Your task to perform on an android device: What's the weather going to be tomorrow? Image 0: 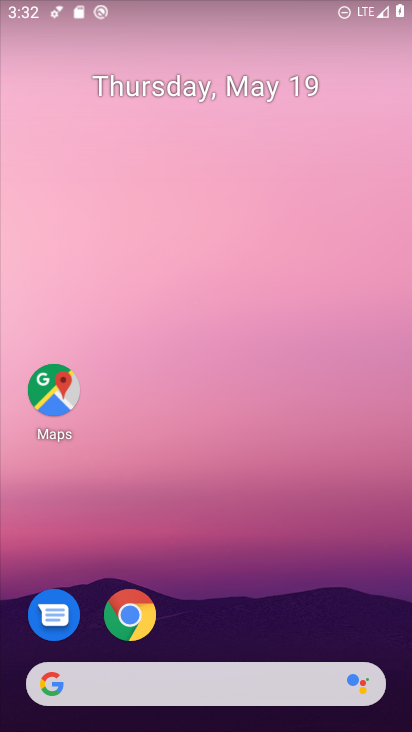
Step 0: drag from (229, 625) to (145, 15)
Your task to perform on an android device: What's the weather going to be tomorrow? Image 1: 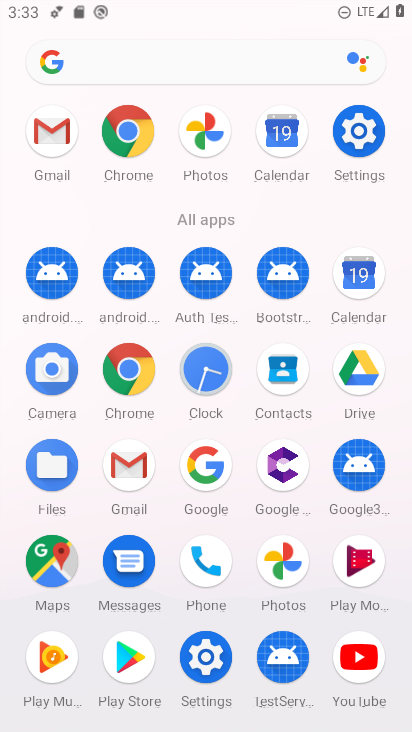
Step 1: click (234, 70)
Your task to perform on an android device: What's the weather going to be tomorrow? Image 2: 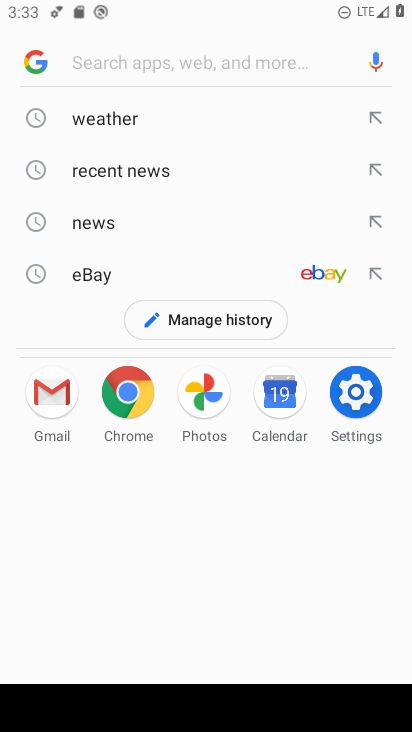
Step 2: type "What's the weather going to be tomorrow?"
Your task to perform on an android device: What's the weather going to be tomorrow? Image 3: 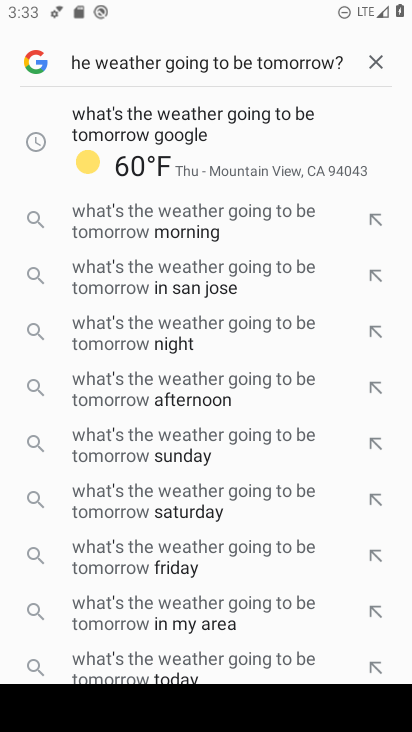
Step 3: click (178, 131)
Your task to perform on an android device: What's the weather going to be tomorrow? Image 4: 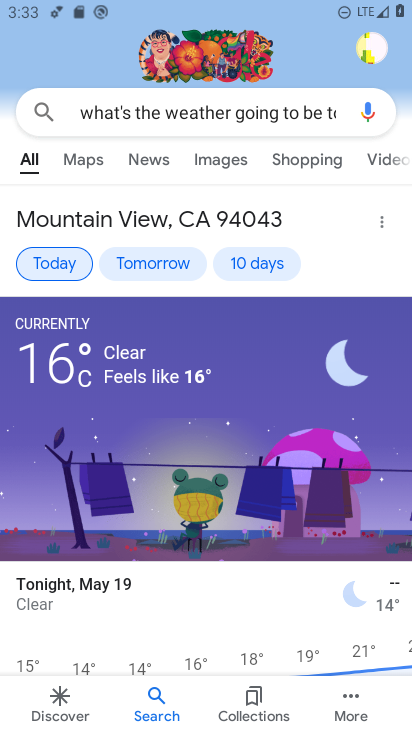
Step 4: drag from (202, 599) to (183, 491)
Your task to perform on an android device: What's the weather going to be tomorrow? Image 5: 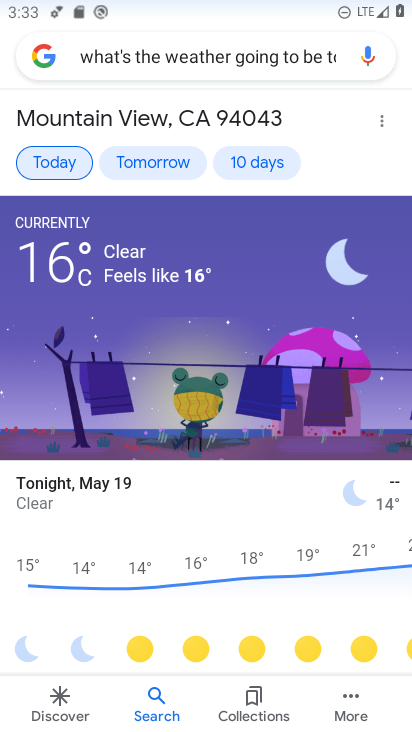
Step 5: click (170, 167)
Your task to perform on an android device: What's the weather going to be tomorrow? Image 6: 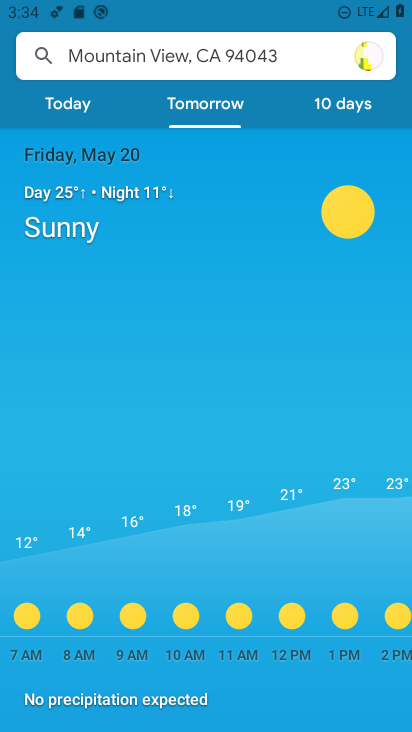
Step 6: task complete